Your task to perform on an android device: move an email to a new category in the gmail app Image 0: 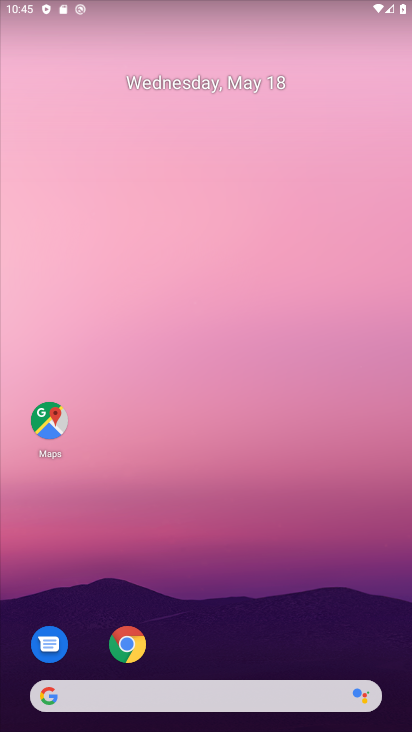
Step 0: drag from (291, 629) to (281, 106)
Your task to perform on an android device: move an email to a new category in the gmail app Image 1: 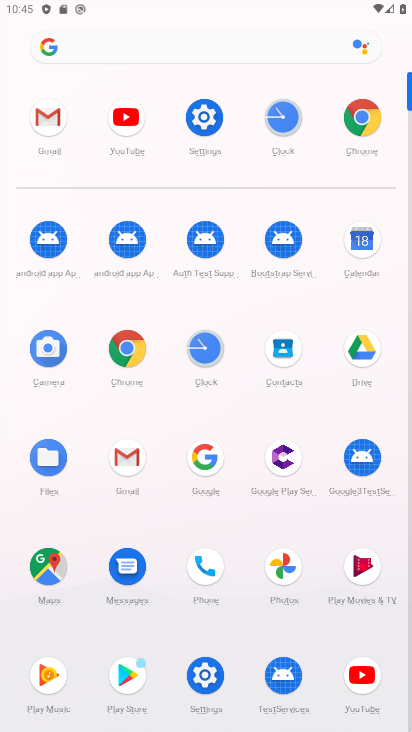
Step 1: click (118, 479)
Your task to perform on an android device: move an email to a new category in the gmail app Image 2: 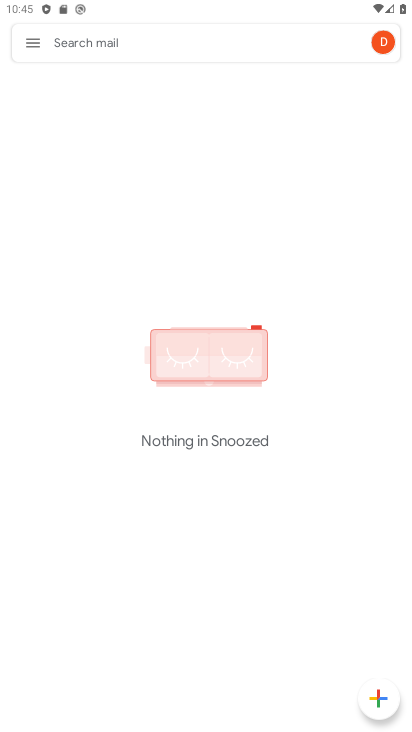
Step 2: task complete